Your task to perform on an android device: turn off picture-in-picture Image 0: 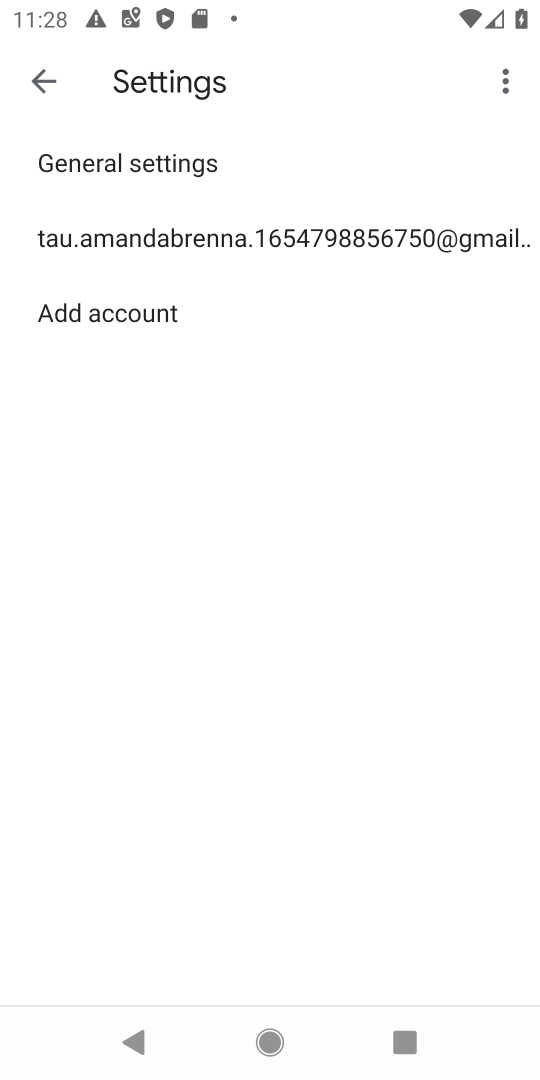
Step 0: press home button
Your task to perform on an android device: turn off picture-in-picture Image 1: 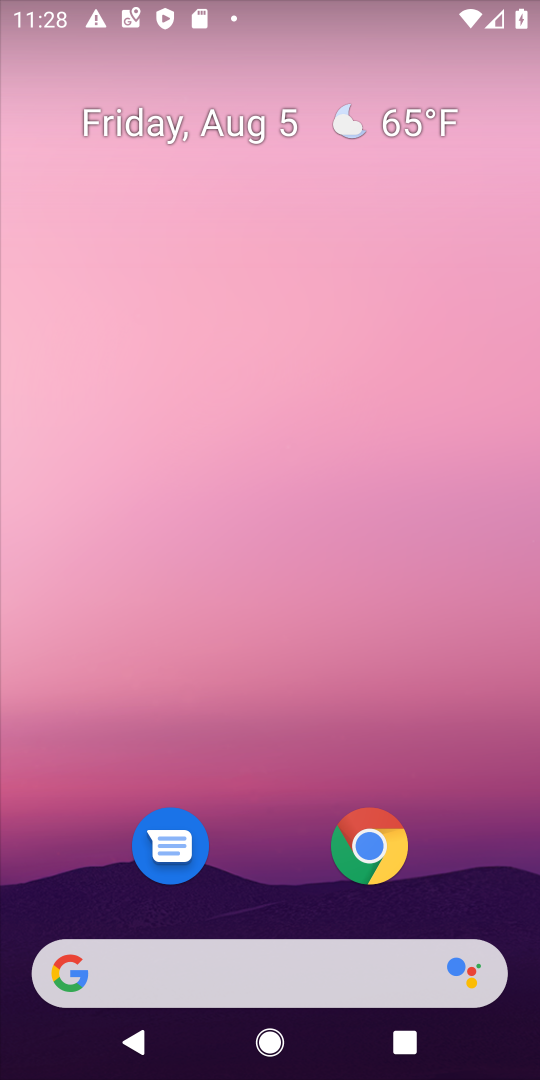
Step 1: click (391, 841)
Your task to perform on an android device: turn off picture-in-picture Image 2: 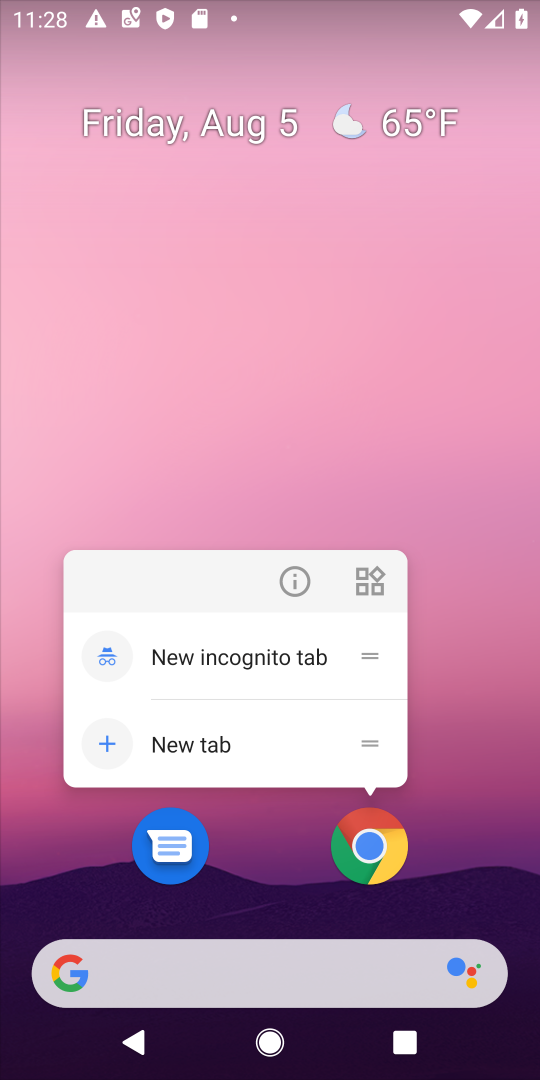
Step 2: click (296, 586)
Your task to perform on an android device: turn off picture-in-picture Image 3: 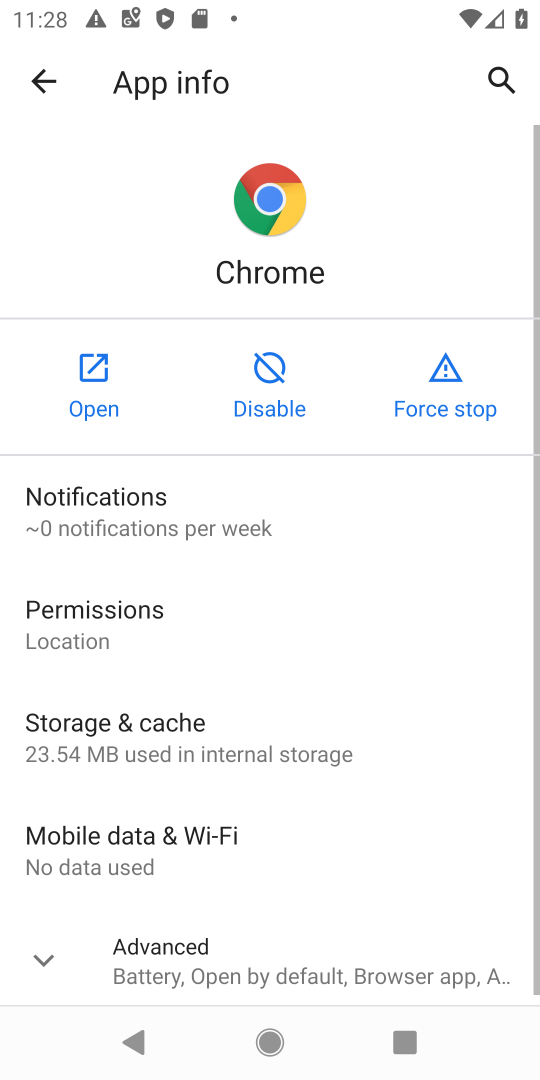
Step 3: drag from (346, 850) to (422, 206)
Your task to perform on an android device: turn off picture-in-picture Image 4: 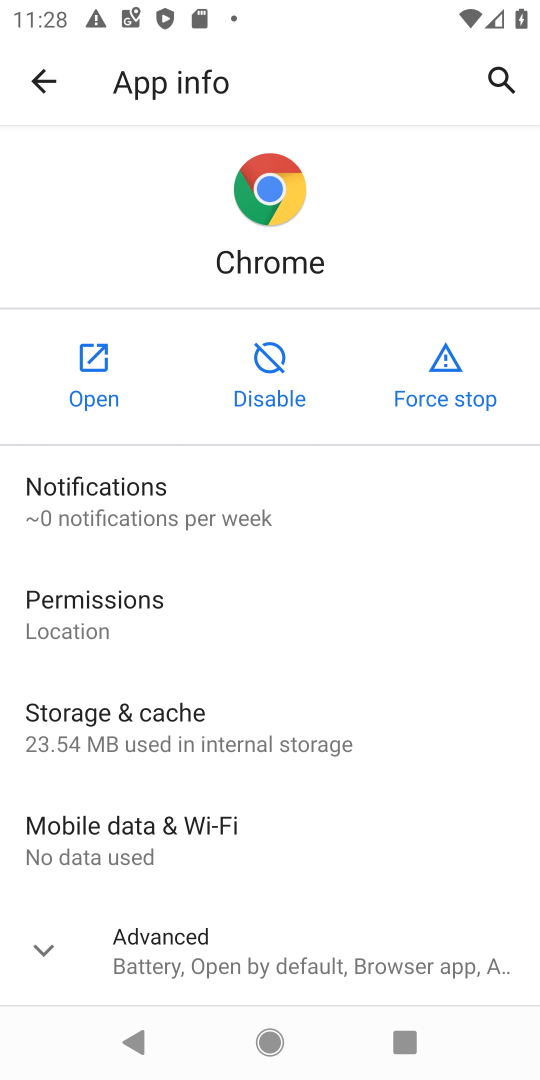
Step 4: click (45, 939)
Your task to perform on an android device: turn off picture-in-picture Image 5: 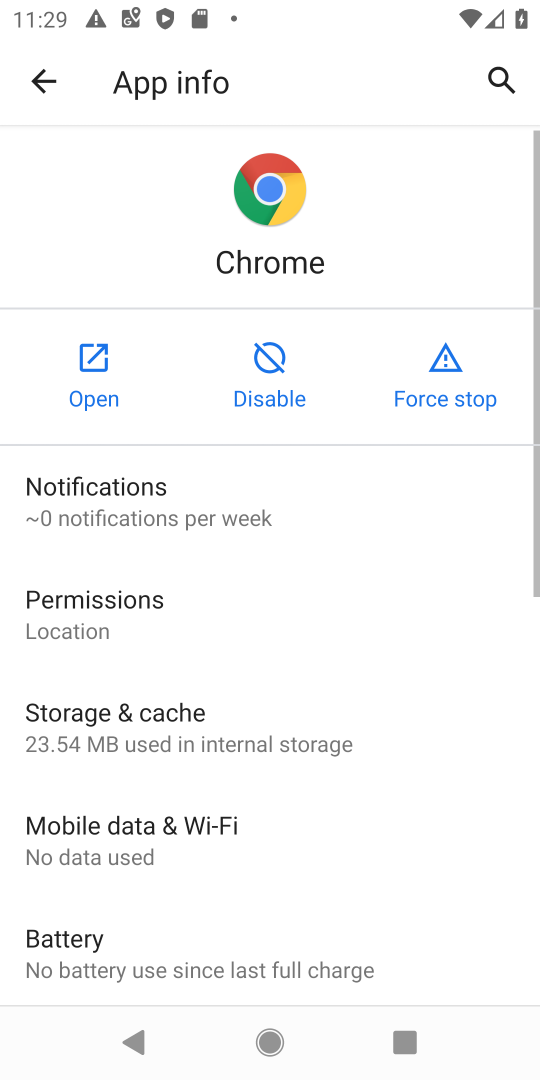
Step 5: drag from (324, 818) to (403, 121)
Your task to perform on an android device: turn off picture-in-picture Image 6: 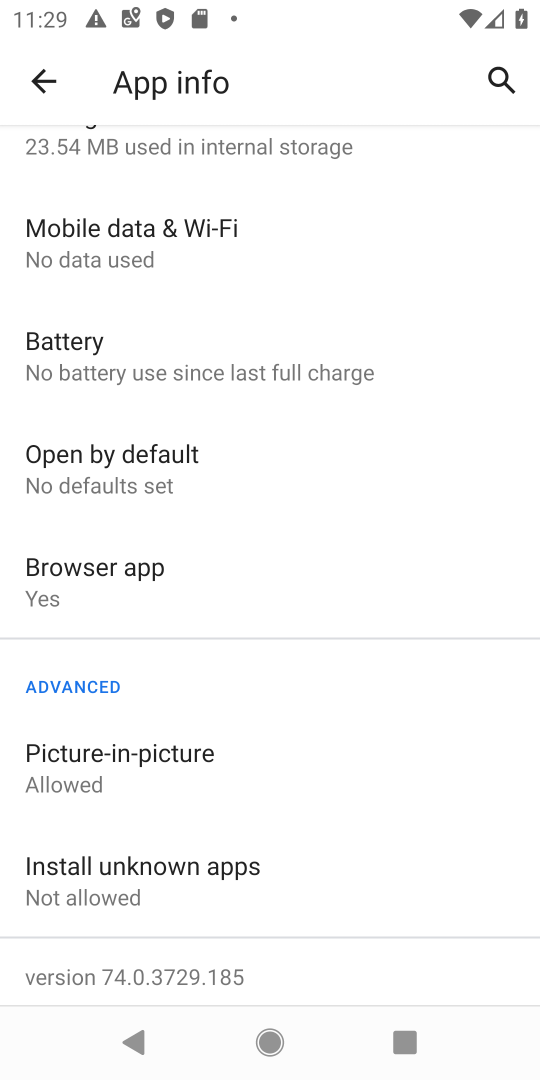
Step 6: click (185, 747)
Your task to perform on an android device: turn off picture-in-picture Image 7: 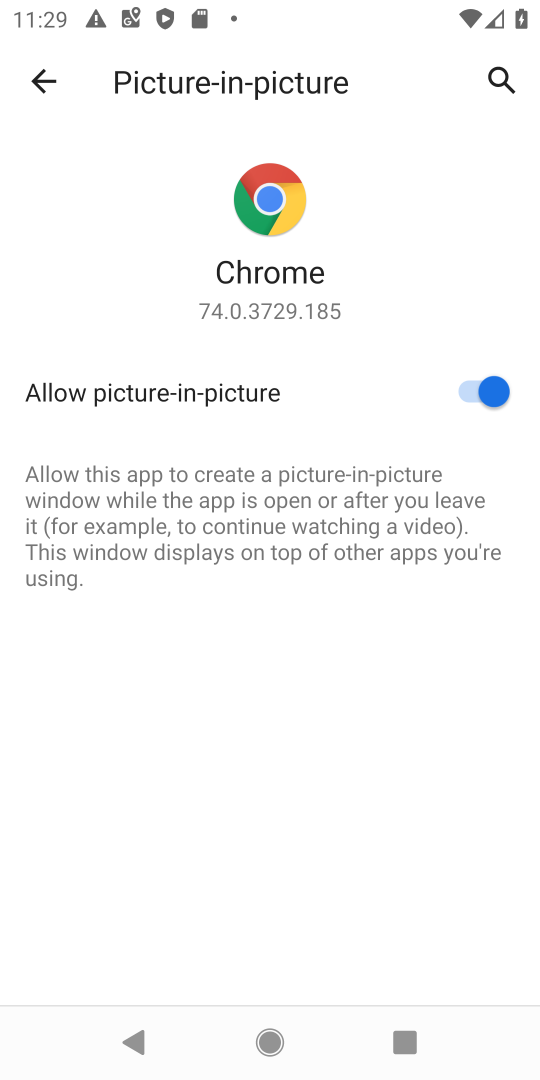
Step 7: click (483, 377)
Your task to perform on an android device: turn off picture-in-picture Image 8: 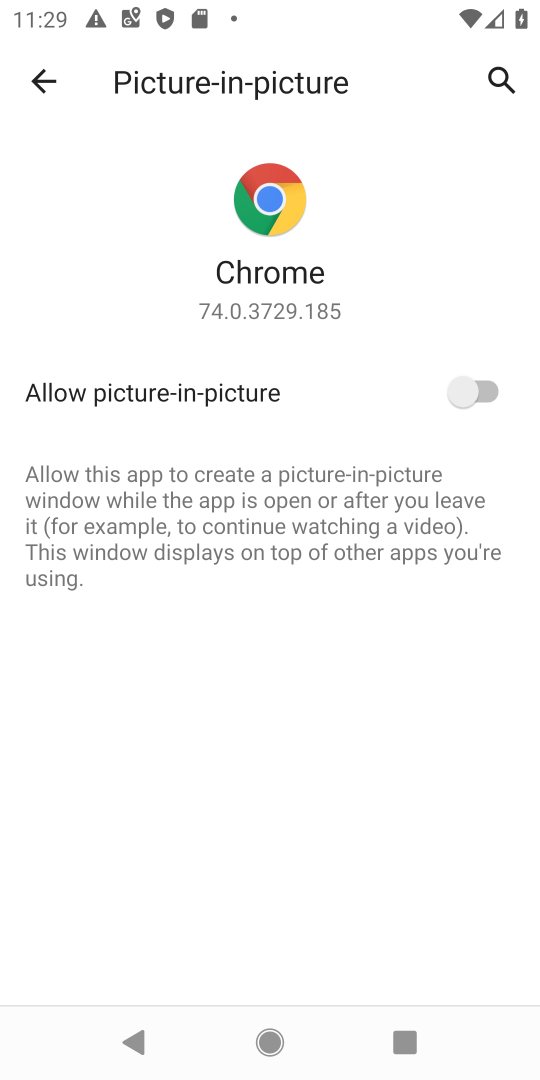
Step 8: task complete